Your task to perform on an android device: turn off smart reply in the gmail app Image 0: 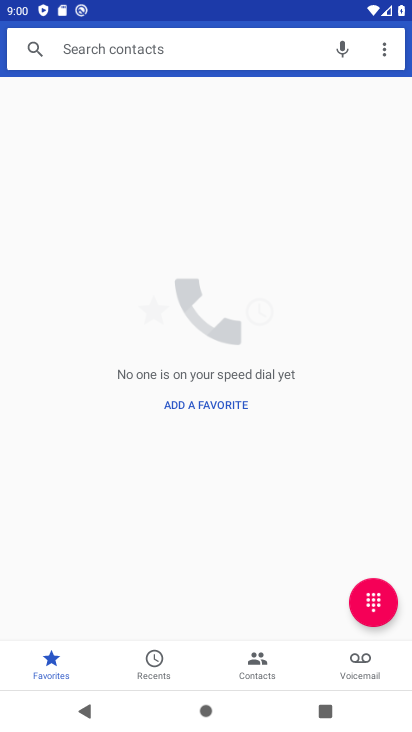
Step 0: press home button
Your task to perform on an android device: turn off smart reply in the gmail app Image 1: 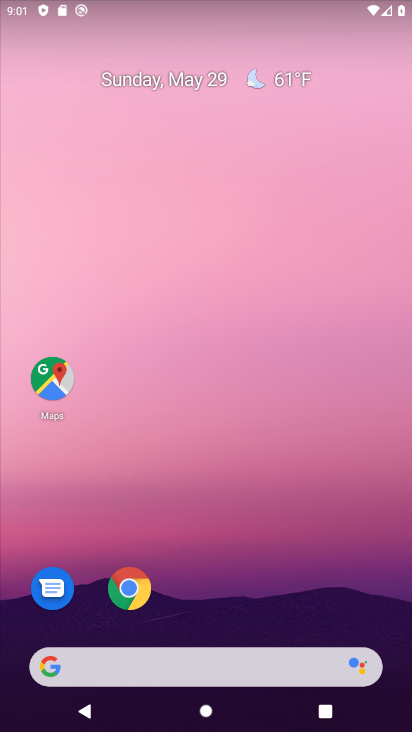
Step 1: drag from (305, 593) to (202, 71)
Your task to perform on an android device: turn off smart reply in the gmail app Image 2: 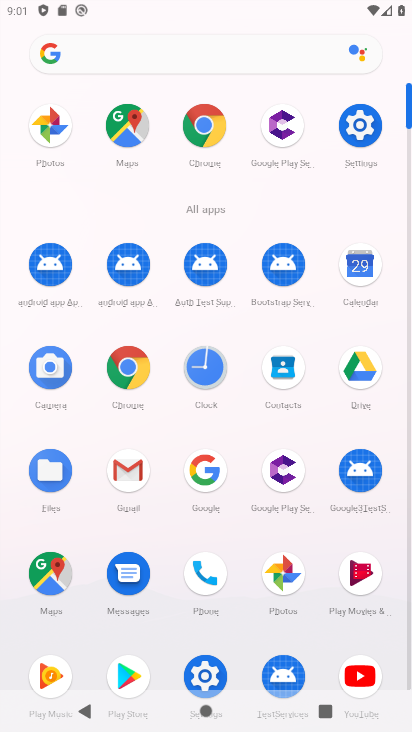
Step 2: click (127, 468)
Your task to perform on an android device: turn off smart reply in the gmail app Image 3: 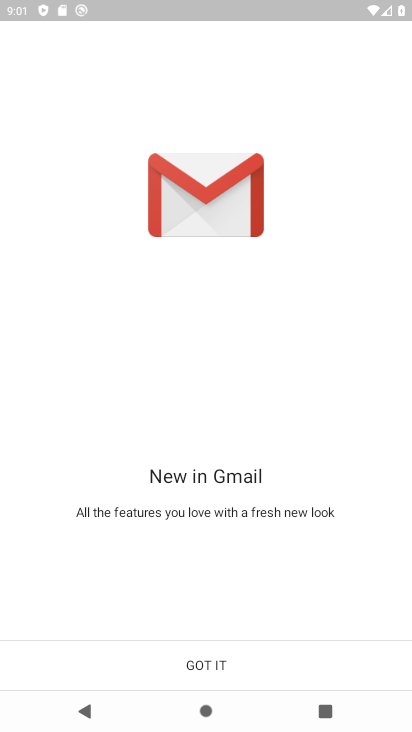
Step 3: click (254, 686)
Your task to perform on an android device: turn off smart reply in the gmail app Image 4: 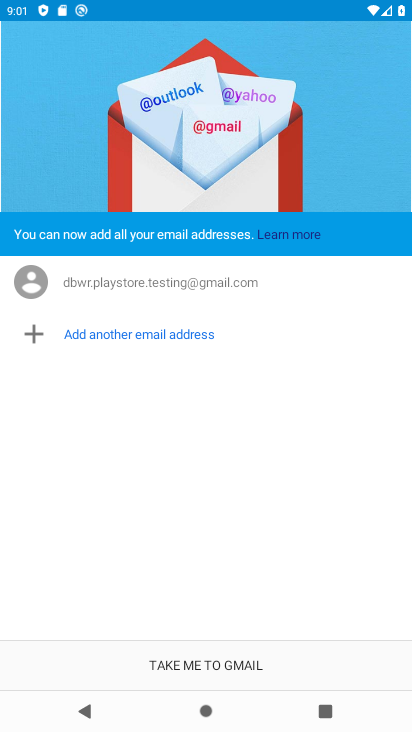
Step 4: click (265, 665)
Your task to perform on an android device: turn off smart reply in the gmail app Image 5: 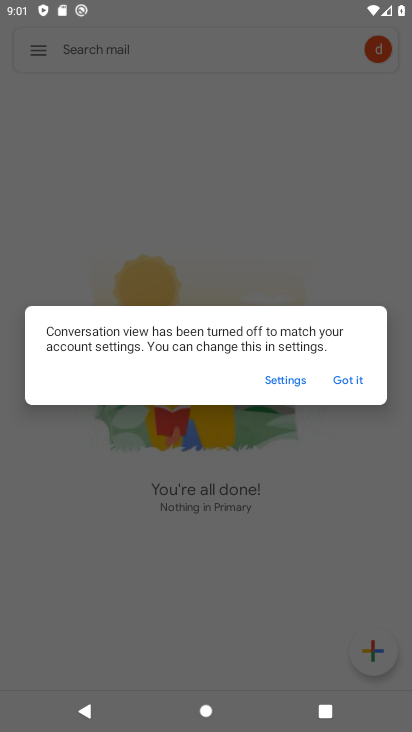
Step 5: click (352, 376)
Your task to perform on an android device: turn off smart reply in the gmail app Image 6: 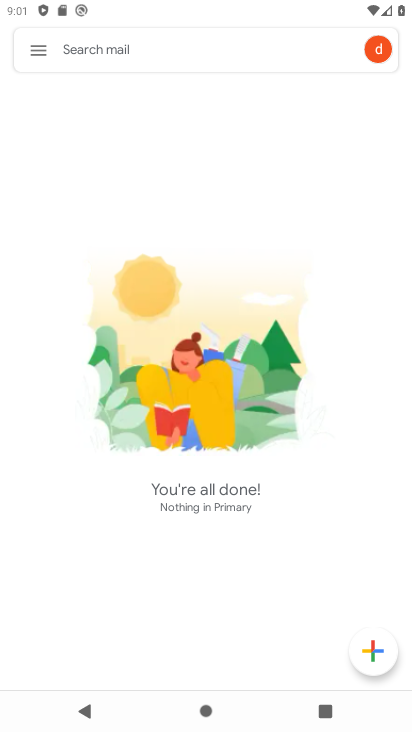
Step 6: click (44, 42)
Your task to perform on an android device: turn off smart reply in the gmail app Image 7: 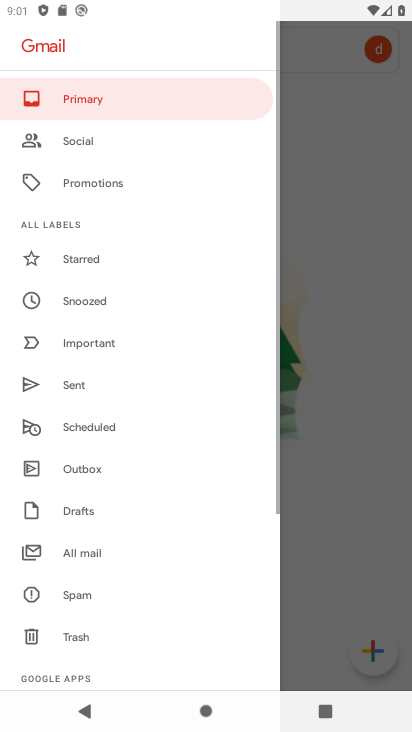
Step 7: drag from (135, 588) to (219, 249)
Your task to perform on an android device: turn off smart reply in the gmail app Image 8: 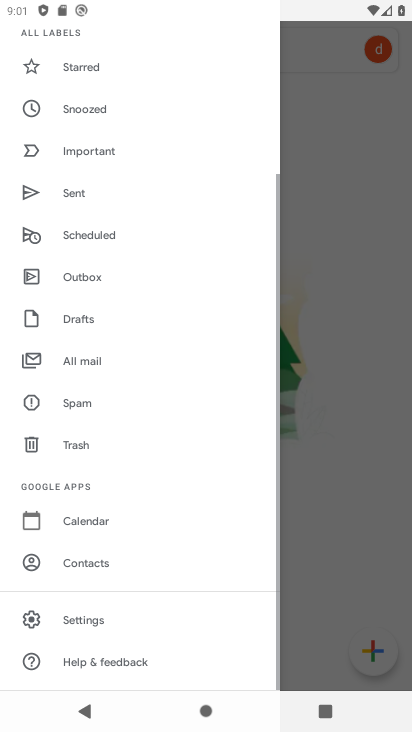
Step 8: click (222, 221)
Your task to perform on an android device: turn off smart reply in the gmail app Image 9: 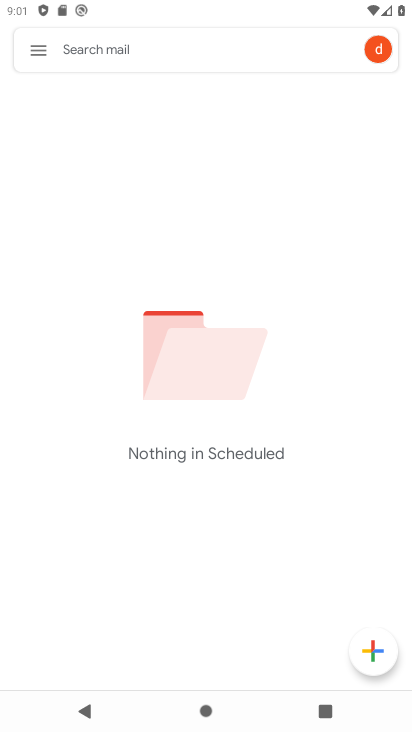
Step 9: click (44, 50)
Your task to perform on an android device: turn off smart reply in the gmail app Image 10: 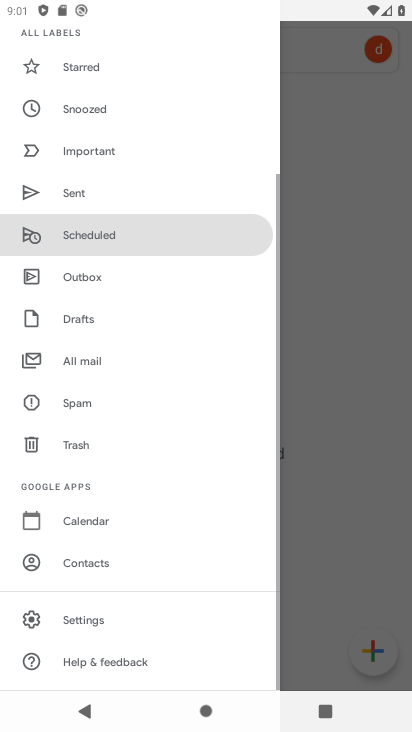
Step 10: drag from (179, 614) to (165, 229)
Your task to perform on an android device: turn off smart reply in the gmail app Image 11: 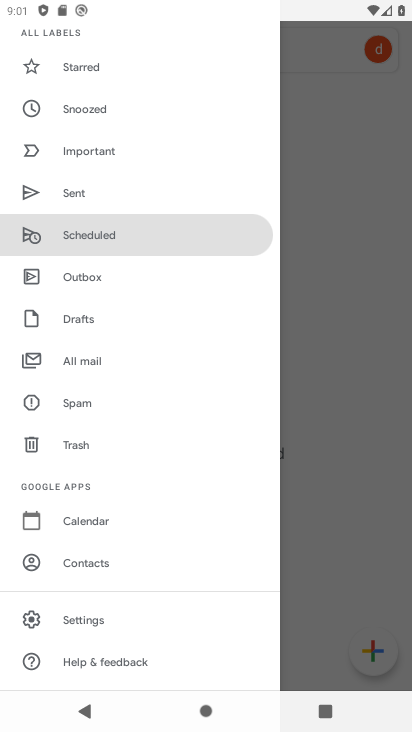
Step 11: click (92, 631)
Your task to perform on an android device: turn off smart reply in the gmail app Image 12: 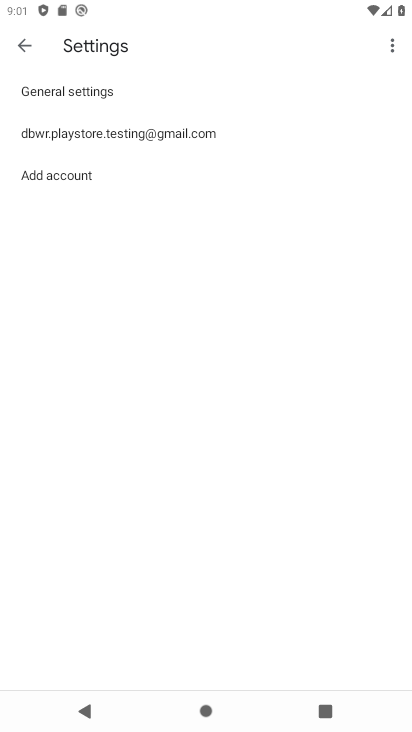
Step 12: click (180, 128)
Your task to perform on an android device: turn off smart reply in the gmail app Image 13: 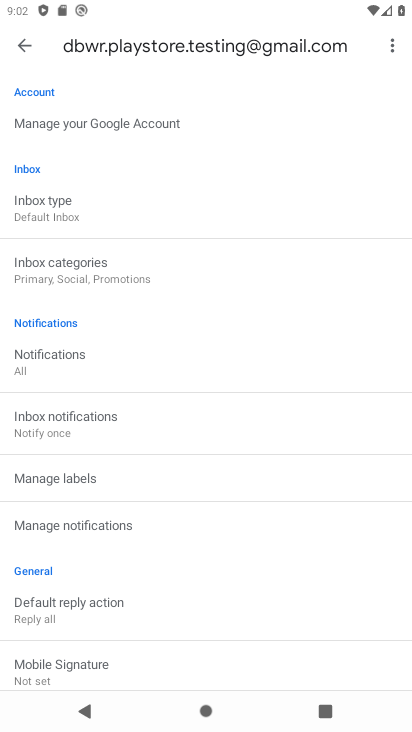
Step 13: drag from (206, 513) to (250, 76)
Your task to perform on an android device: turn off smart reply in the gmail app Image 14: 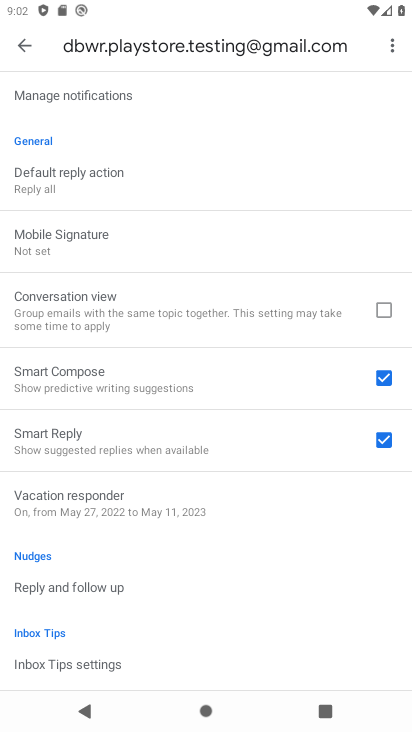
Step 14: click (392, 440)
Your task to perform on an android device: turn off smart reply in the gmail app Image 15: 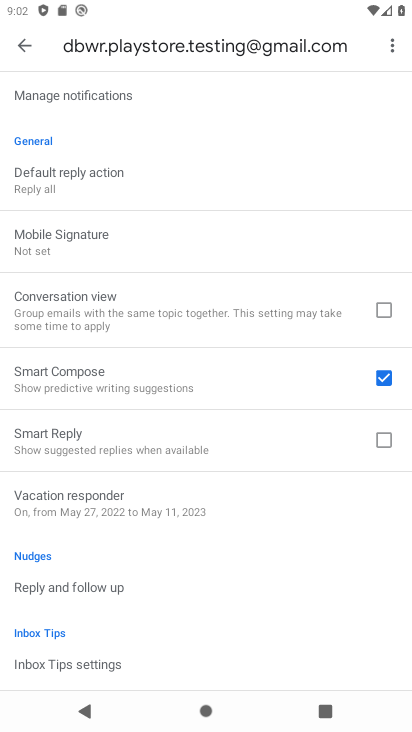
Step 15: task complete